Your task to perform on an android device: move a message to another label in the gmail app Image 0: 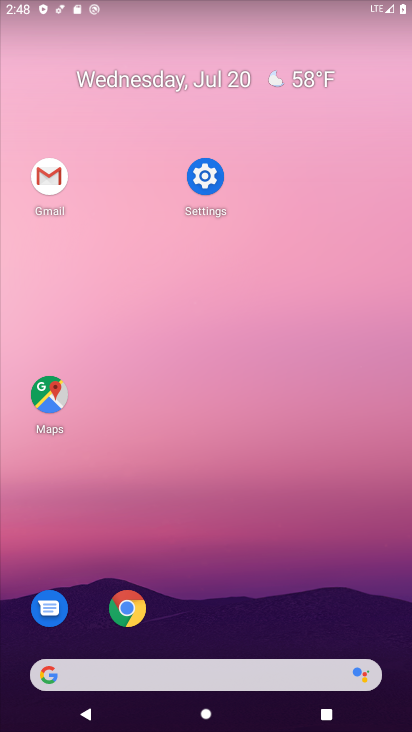
Step 0: click (31, 175)
Your task to perform on an android device: move a message to another label in the gmail app Image 1: 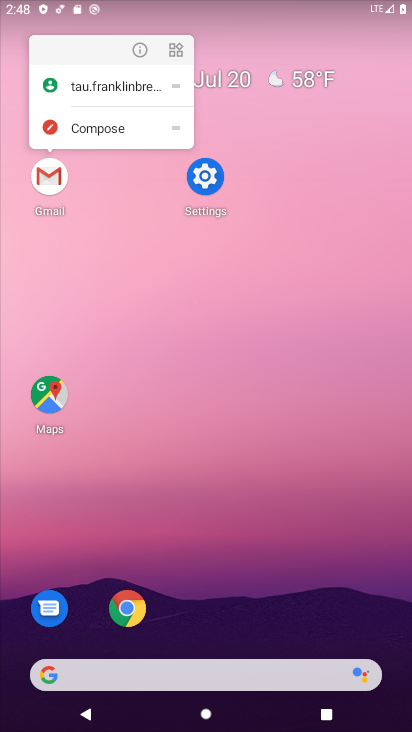
Step 1: click (46, 188)
Your task to perform on an android device: move a message to another label in the gmail app Image 2: 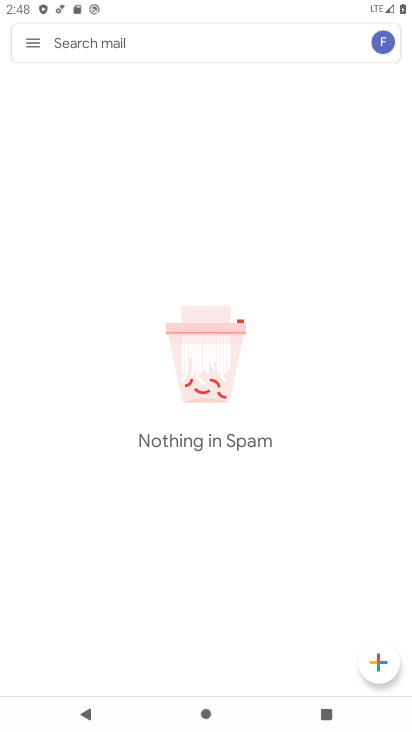
Step 2: click (36, 49)
Your task to perform on an android device: move a message to another label in the gmail app Image 3: 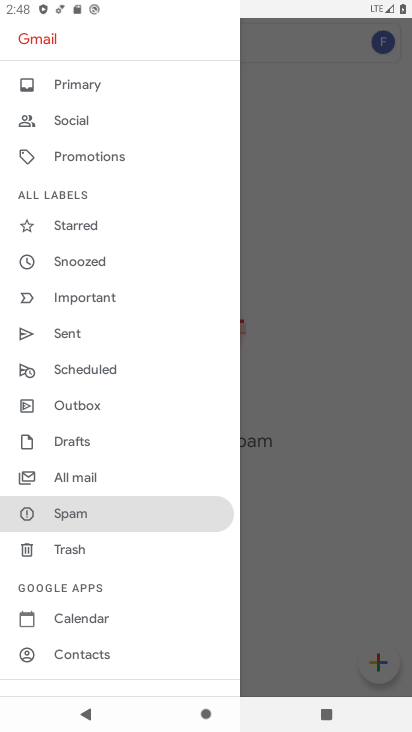
Step 3: click (82, 474)
Your task to perform on an android device: move a message to another label in the gmail app Image 4: 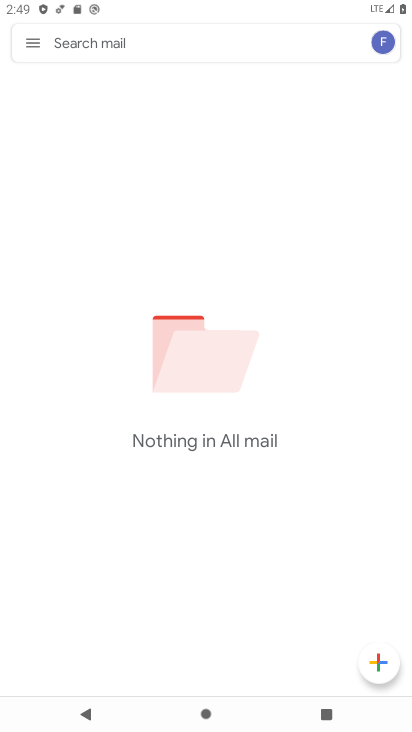
Step 4: task complete